Your task to perform on an android device: turn on priority inbox in the gmail app Image 0: 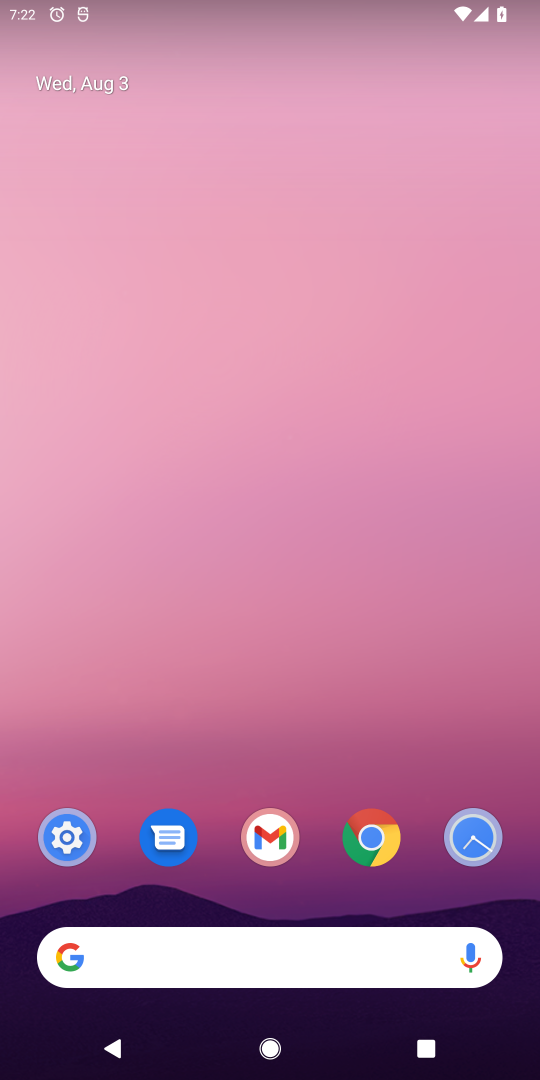
Step 0: drag from (310, 320) to (316, 8)
Your task to perform on an android device: turn on priority inbox in the gmail app Image 1: 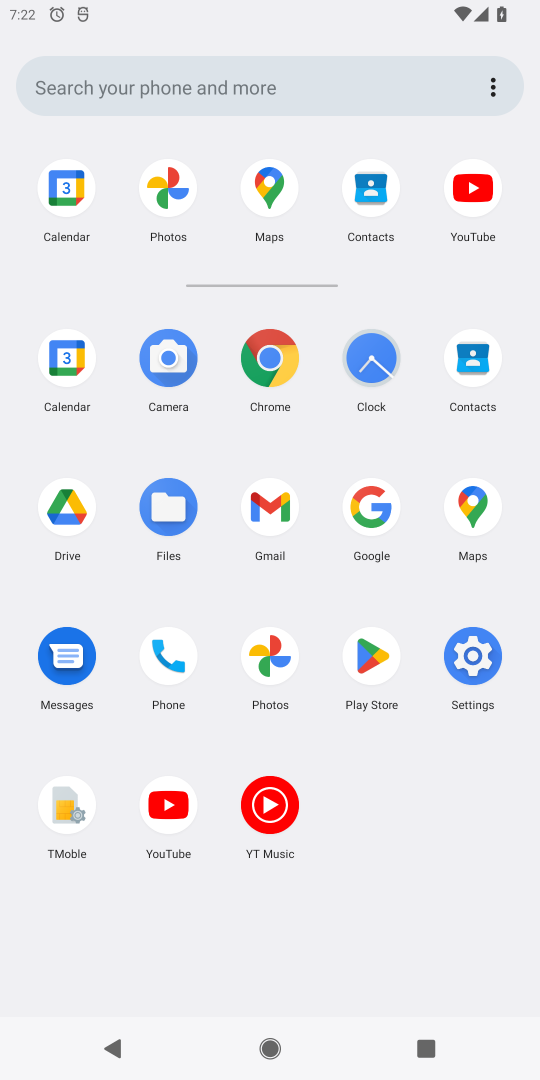
Step 1: click (261, 508)
Your task to perform on an android device: turn on priority inbox in the gmail app Image 2: 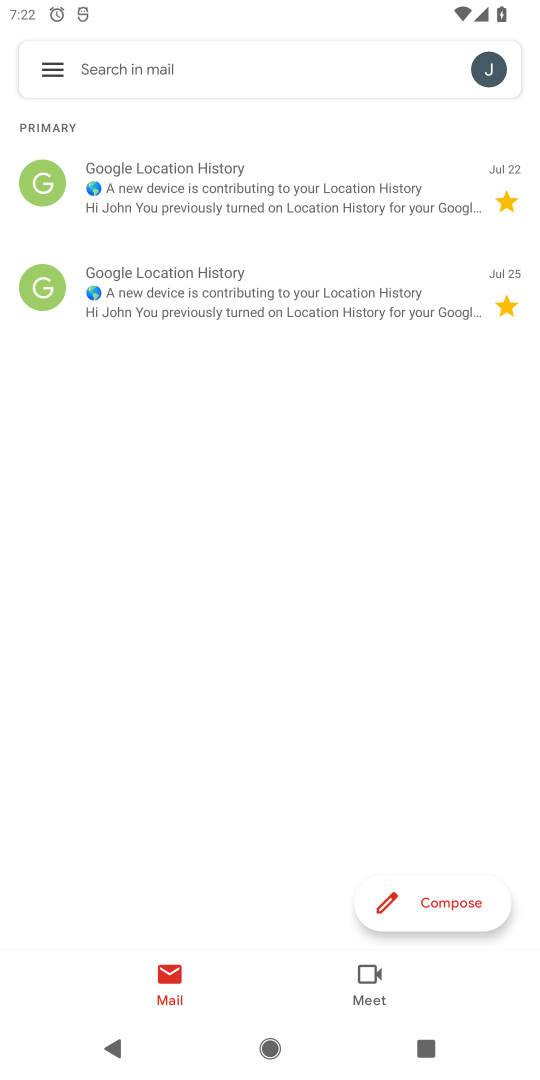
Step 2: click (58, 76)
Your task to perform on an android device: turn on priority inbox in the gmail app Image 3: 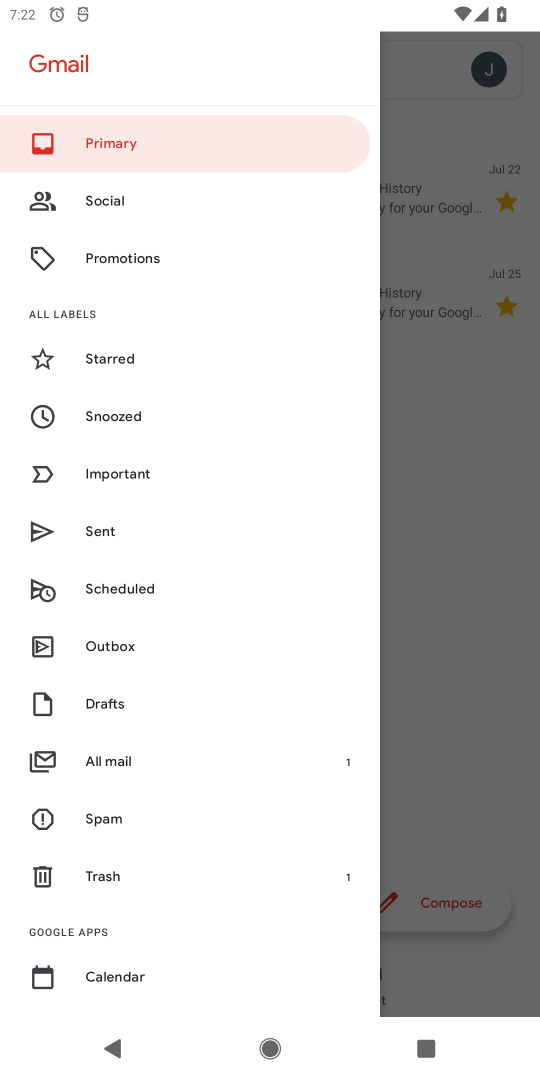
Step 3: drag from (158, 918) to (142, 355)
Your task to perform on an android device: turn on priority inbox in the gmail app Image 4: 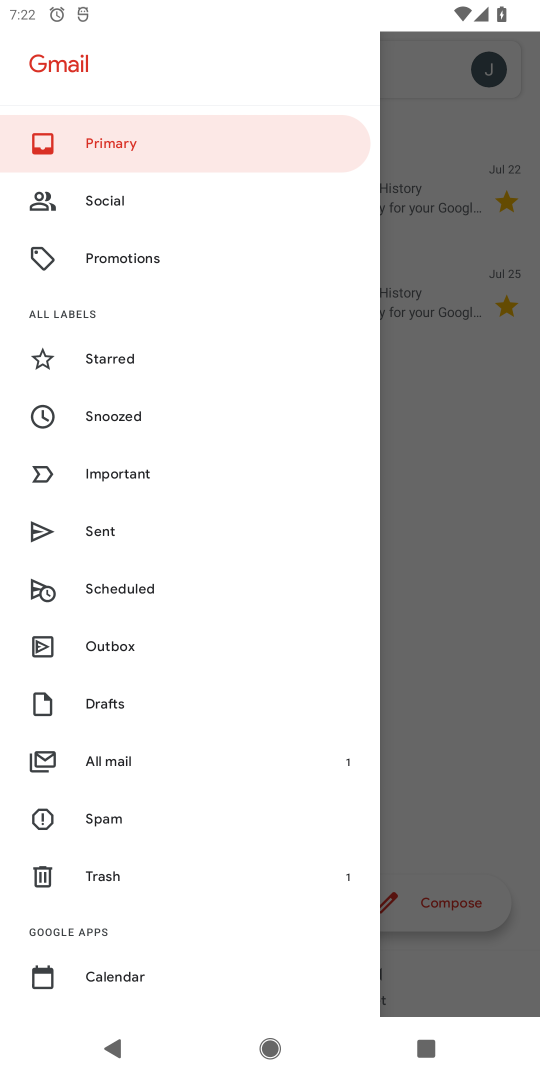
Step 4: drag from (178, 924) to (184, 355)
Your task to perform on an android device: turn on priority inbox in the gmail app Image 5: 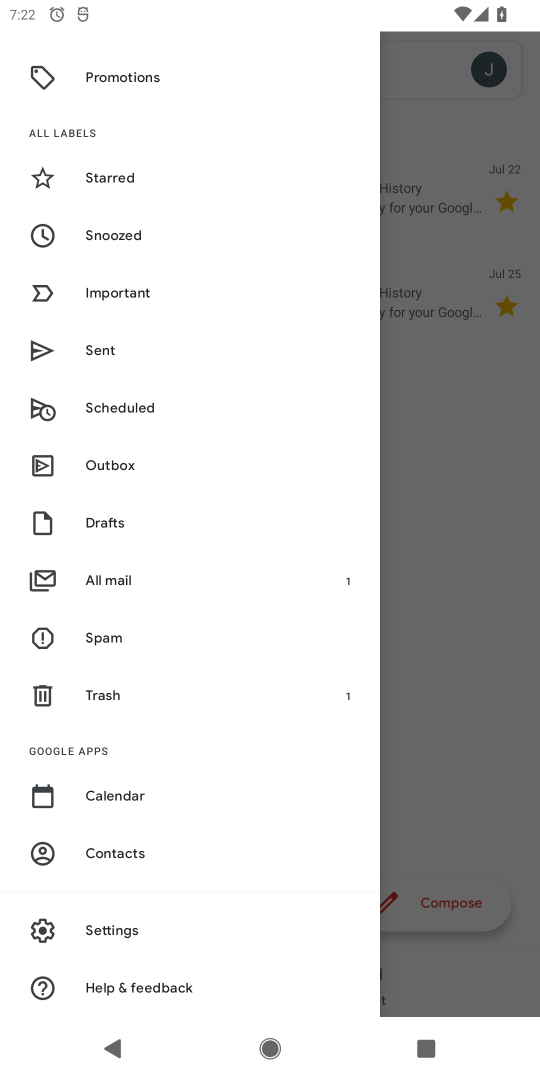
Step 5: click (142, 929)
Your task to perform on an android device: turn on priority inbox in the gmail app Image 6: 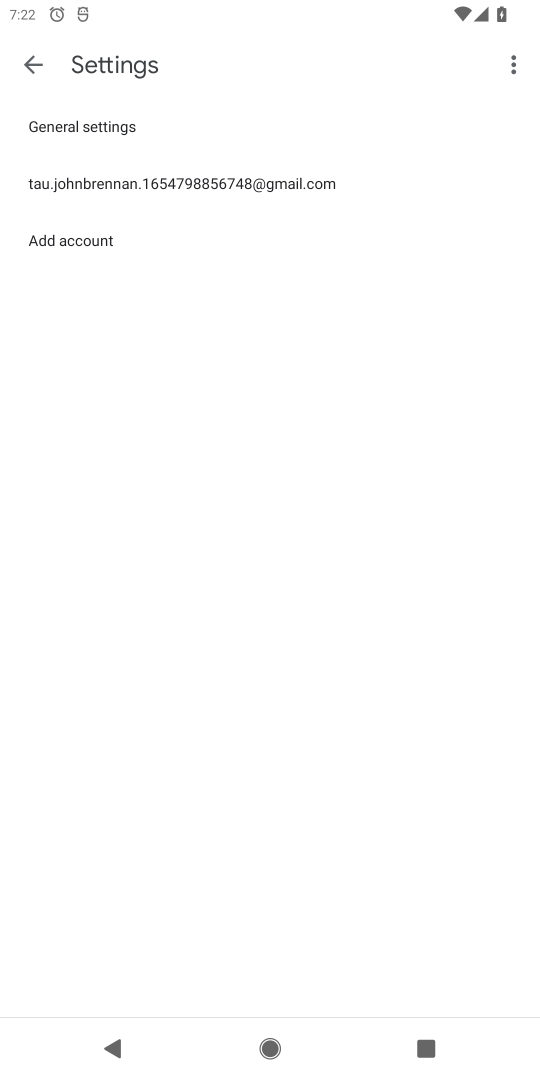
Step 6: click (120, 180)
Your task to perform on an android device: turn on priority inbox in the gmail app Image 7: 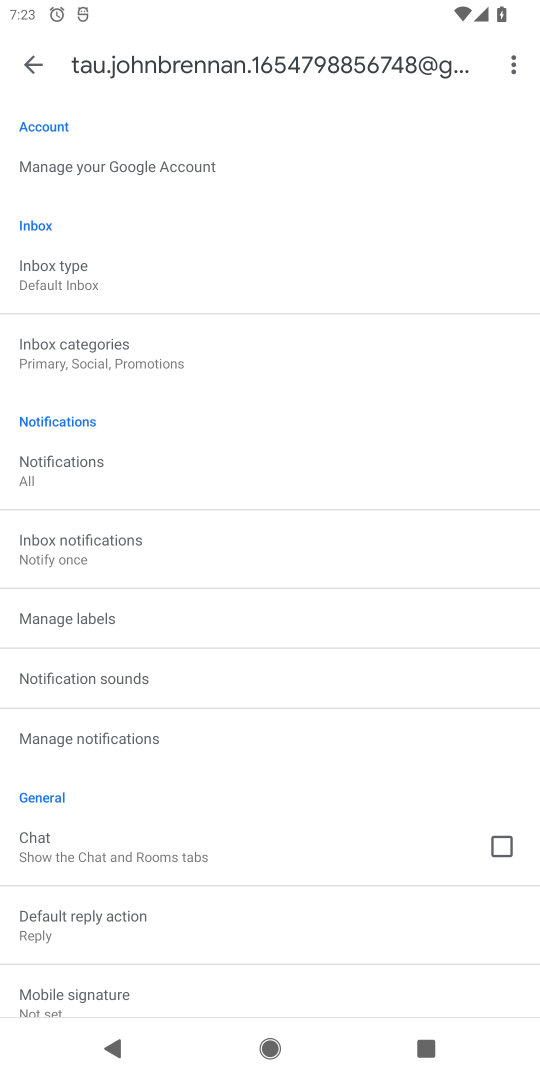
Step 7: click (91, 269)
Your task to perform on an android device: turn on priority inbox in the gmail app Image 8: 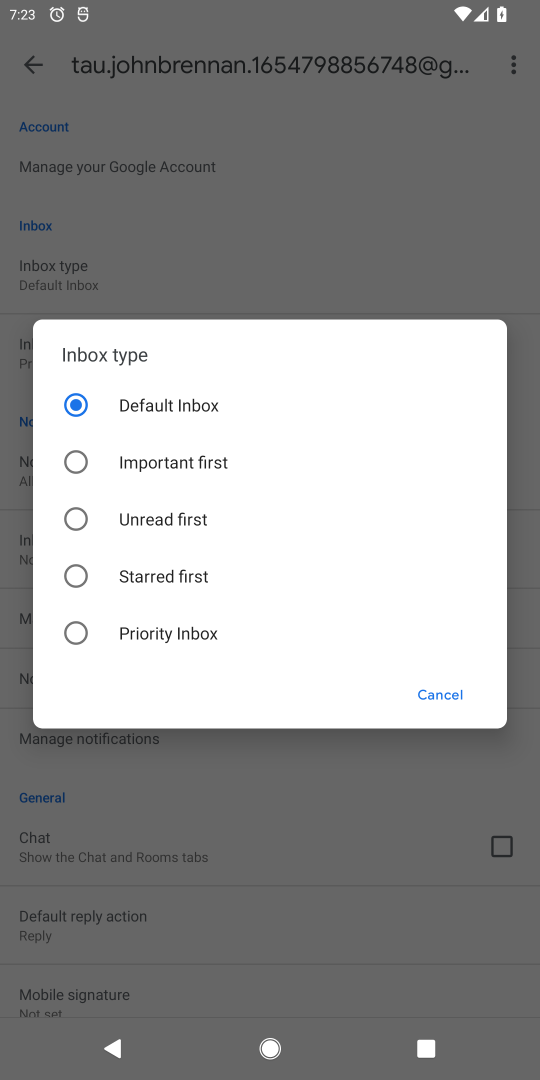
Step 8: click (81, 628)
Your task to perform on an android device: turn on priority inbox in the gmail app Image 9: 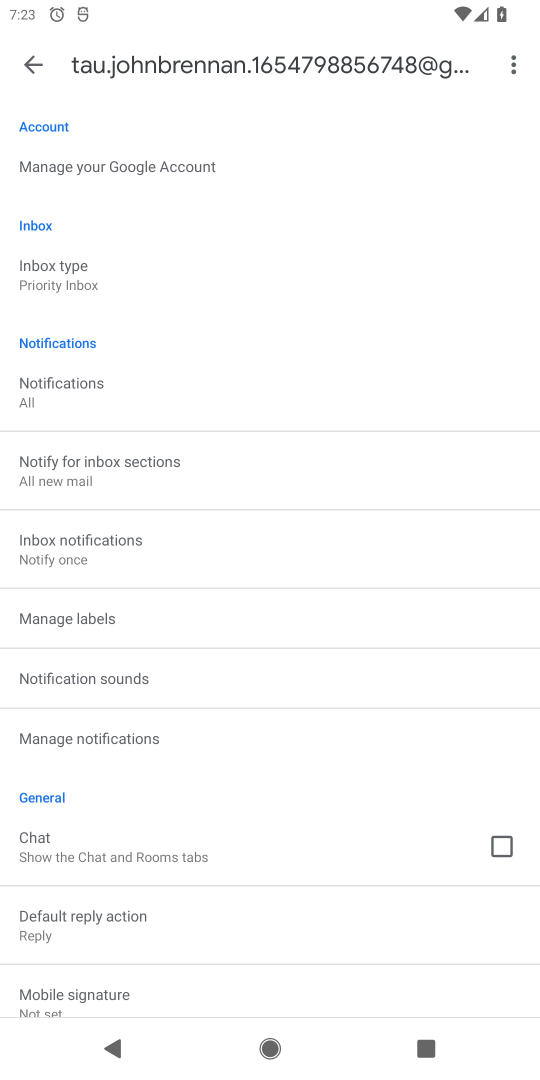
Step 9: task complete